Your task to perform on an android device: Open my contact list Image 0: 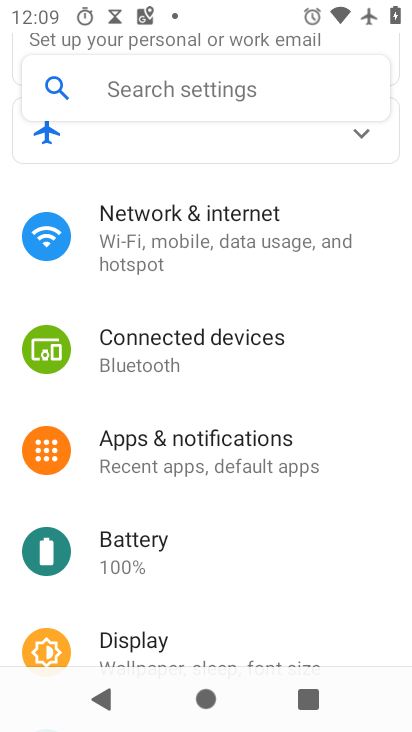
Step 0: press back button
Your task to perform on an android device: Open my contact list Image 1: 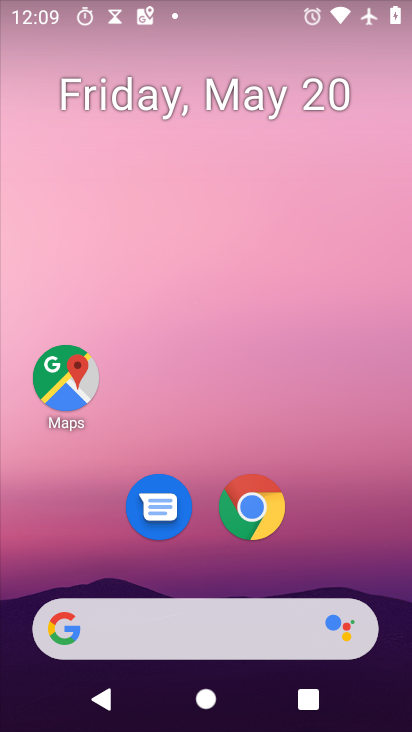
Step 1: drag from (314, 554) to (303, 18)
Your task to perform on an android device: Open my contact list Image 2: 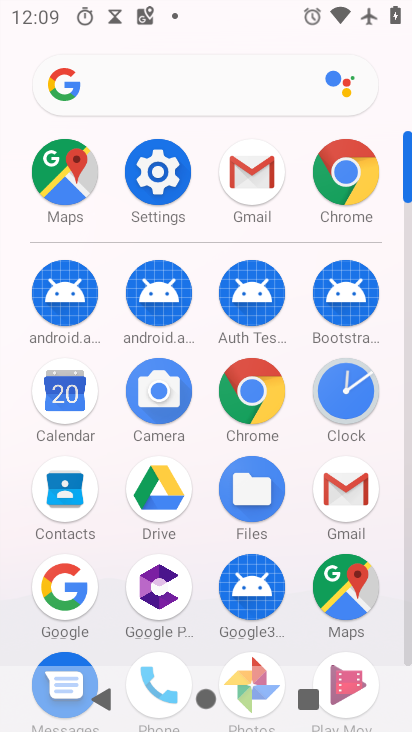
Step 2: drag from (7, 552) to (5, 168)
Your task to perform on an android device: Open my contact list Image 3: 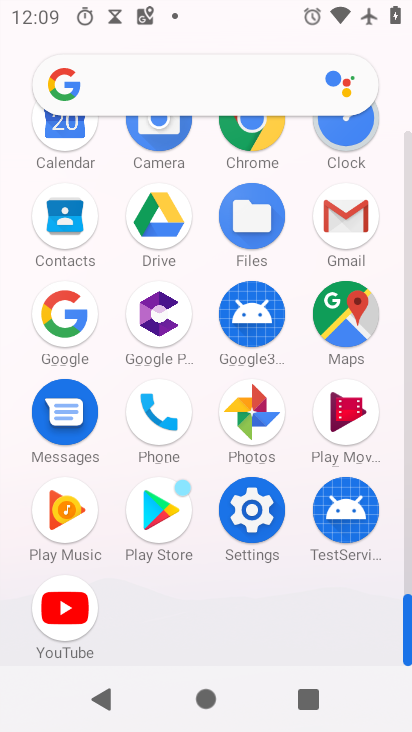
Step 3: click (57, 210)
Your task to perform on an android device: Open my contact list Image 4: 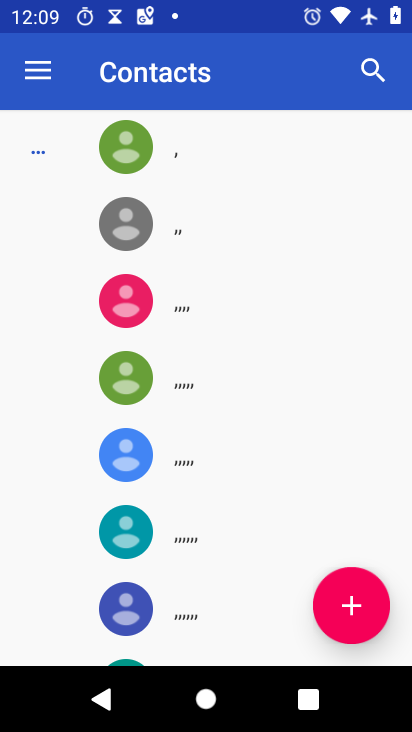
Step 4: task complete